Your task to perform on an android device: Show me popular videos on Youtube Image 0: 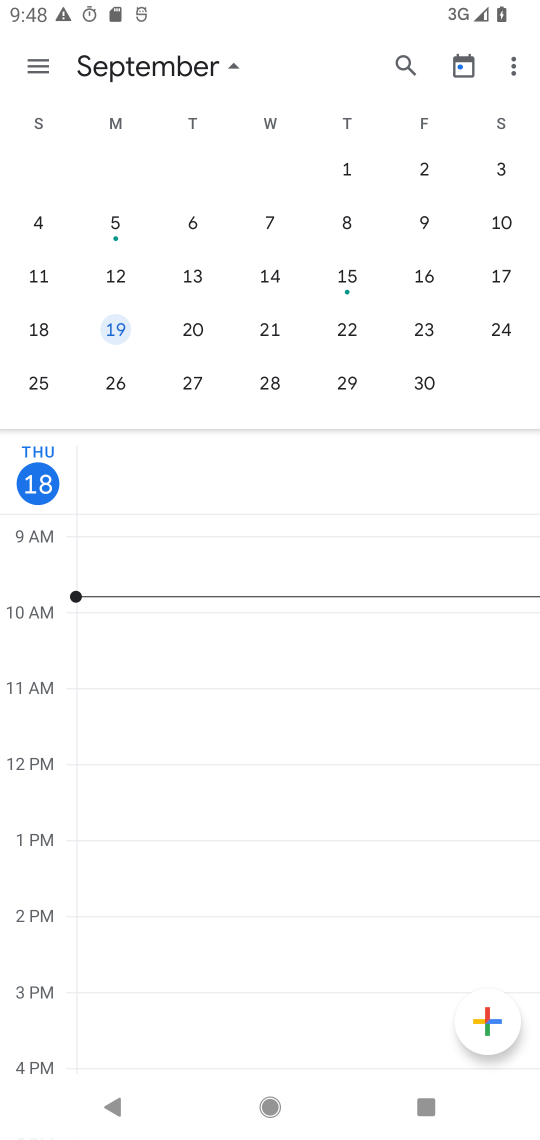
Step 0: press home button
Your task to perform on an android device: Show me popular videos on Youtube Image 1: 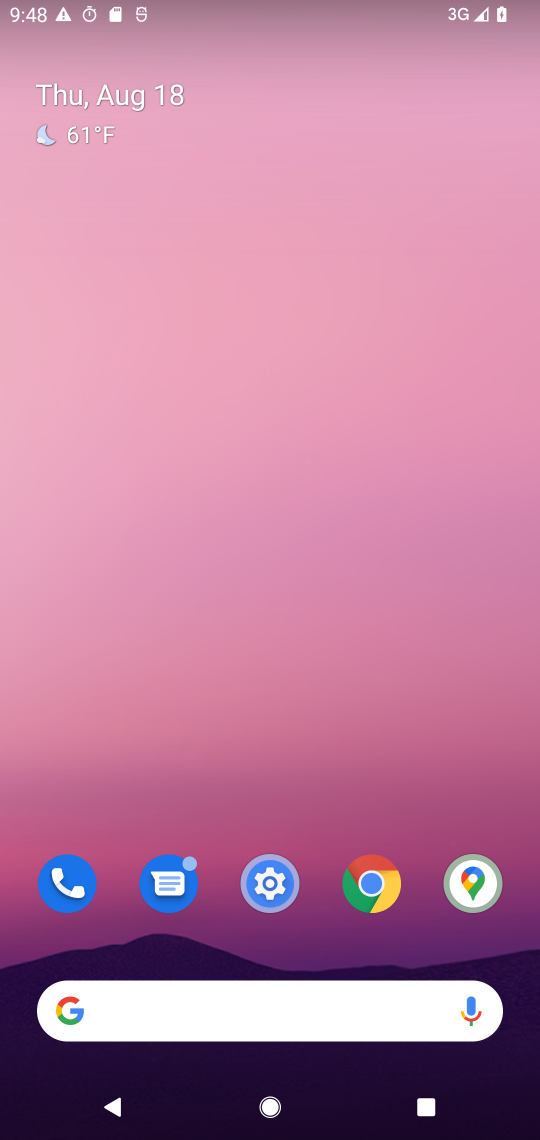
Step 1: drag from (59, 1085) to (230, 340)
Your task to perform on an android device: Show me popular videos on Youtube Image 2: 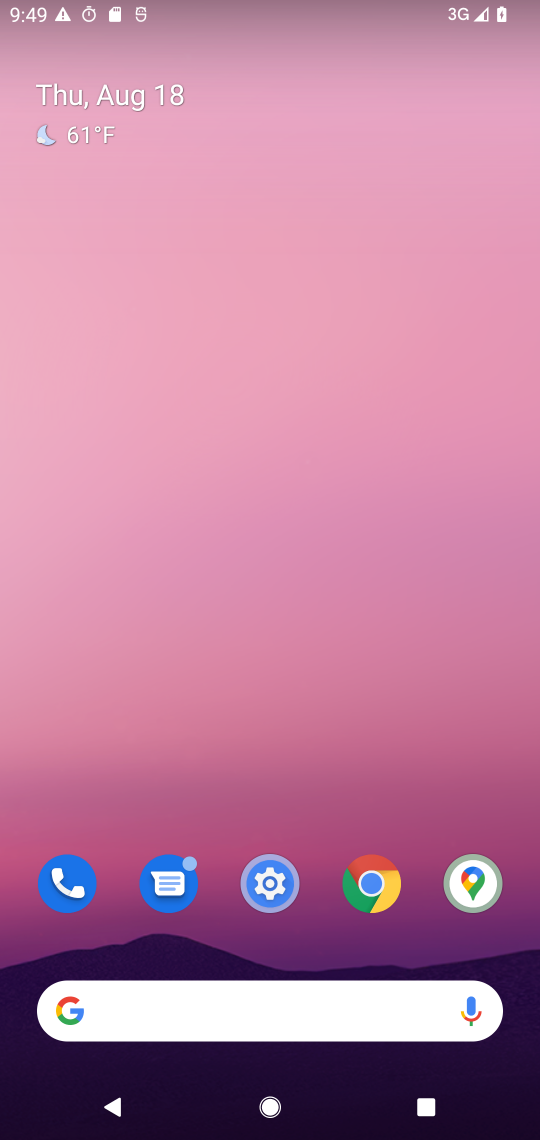
Step 2: drag from (28, 1100) to (164, 213)
Your task to perform on an android device: Show me popular videos on Youtube Image 3: 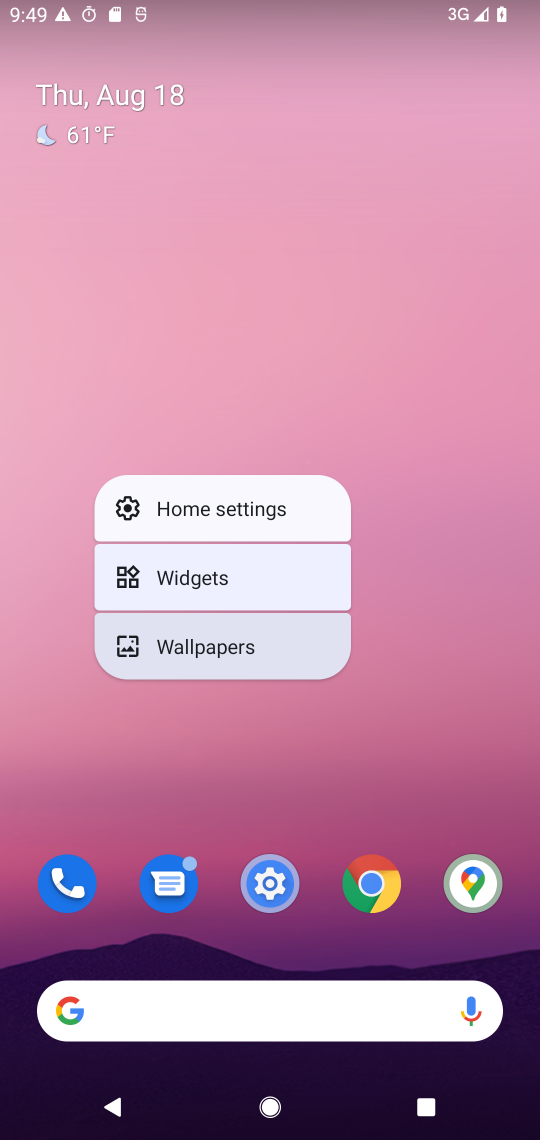
Step 3: drag from (52, 1071) to (32, 348)
Your task to perform on an android device: Show me popular videos on Youtube Image 4: 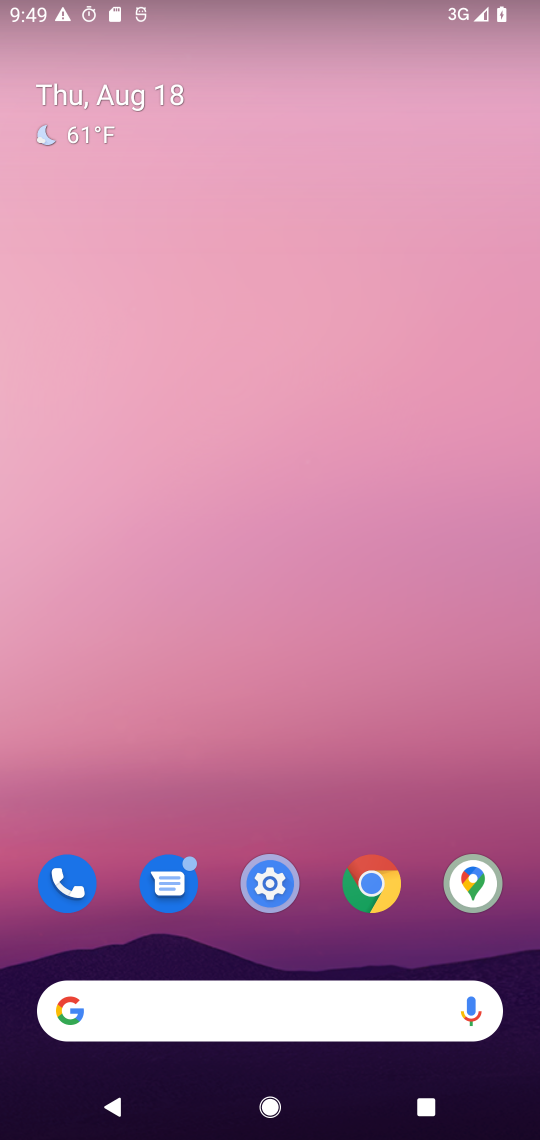
Step 4: drag from (60, 1058) to (226, 495)
Your task to perform on an android device: Show me popular videos on Youtube Image 5: 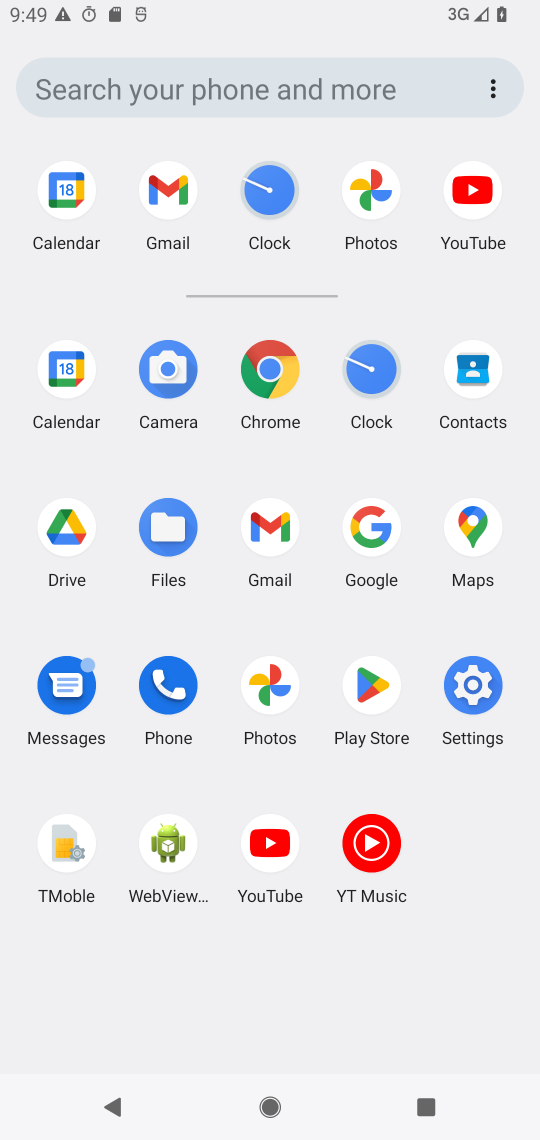
Step 5: click (286, 849)
Your task to perform on an android device: Show me popular videos on Youtube Image 6: 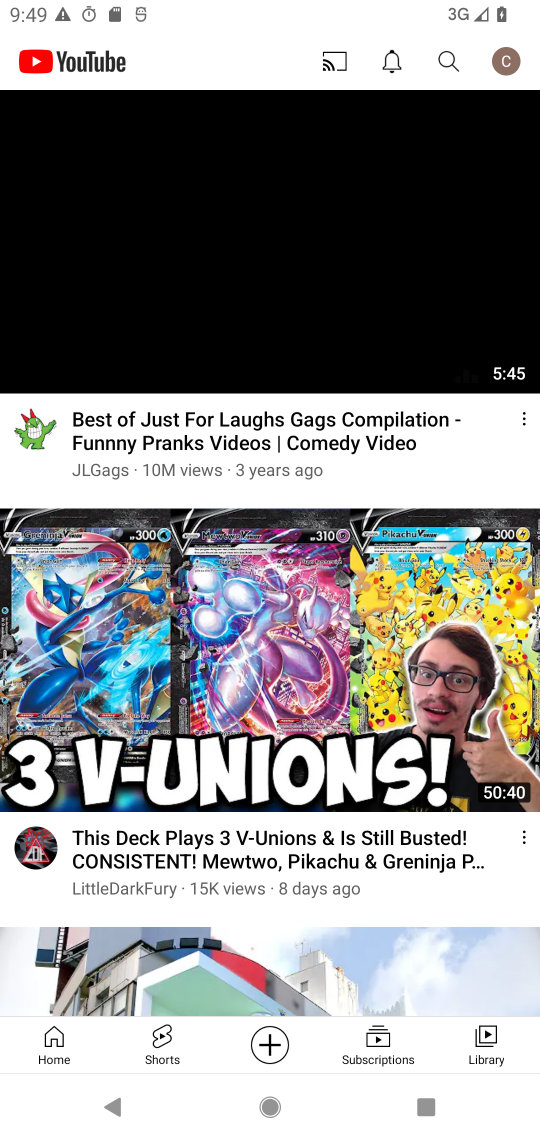
Step 6: click (443, 56)
Your task to perform on an android device: Show me popular videos on Youtube Image 7: 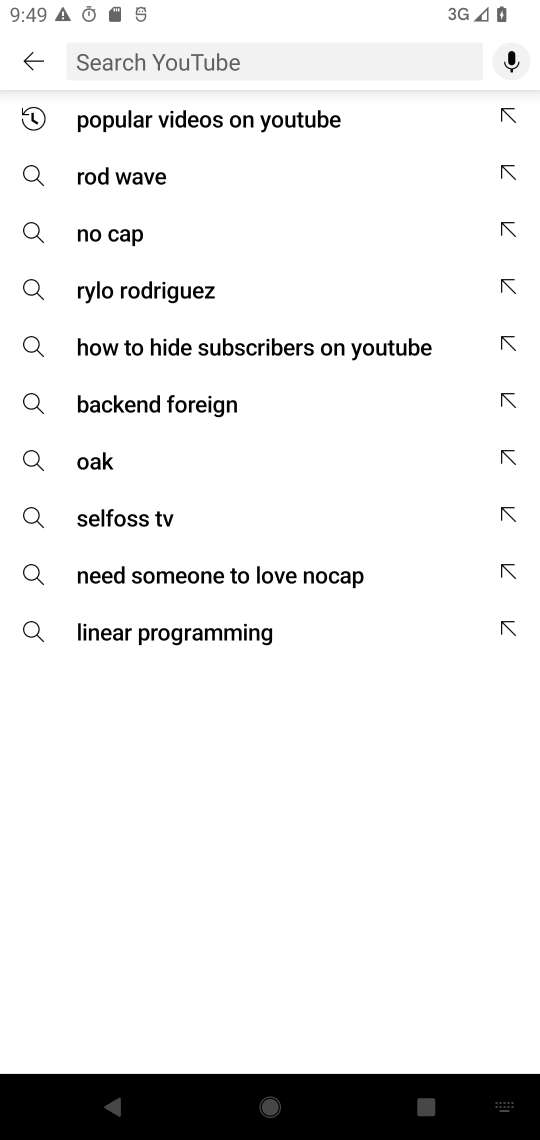
Step 7: click (265, 130)
Your task to perform on an android device: Show me popular videos on Youtube Image 8: 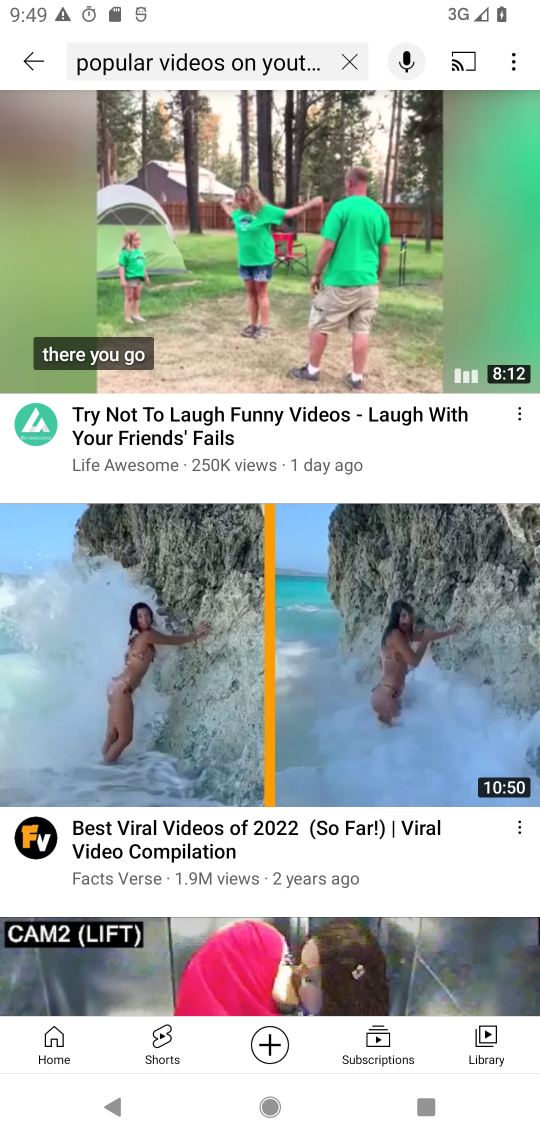
Step 8: task complete